Your task to perform on an android device: uninstall "Google Find My Device" Image 0: 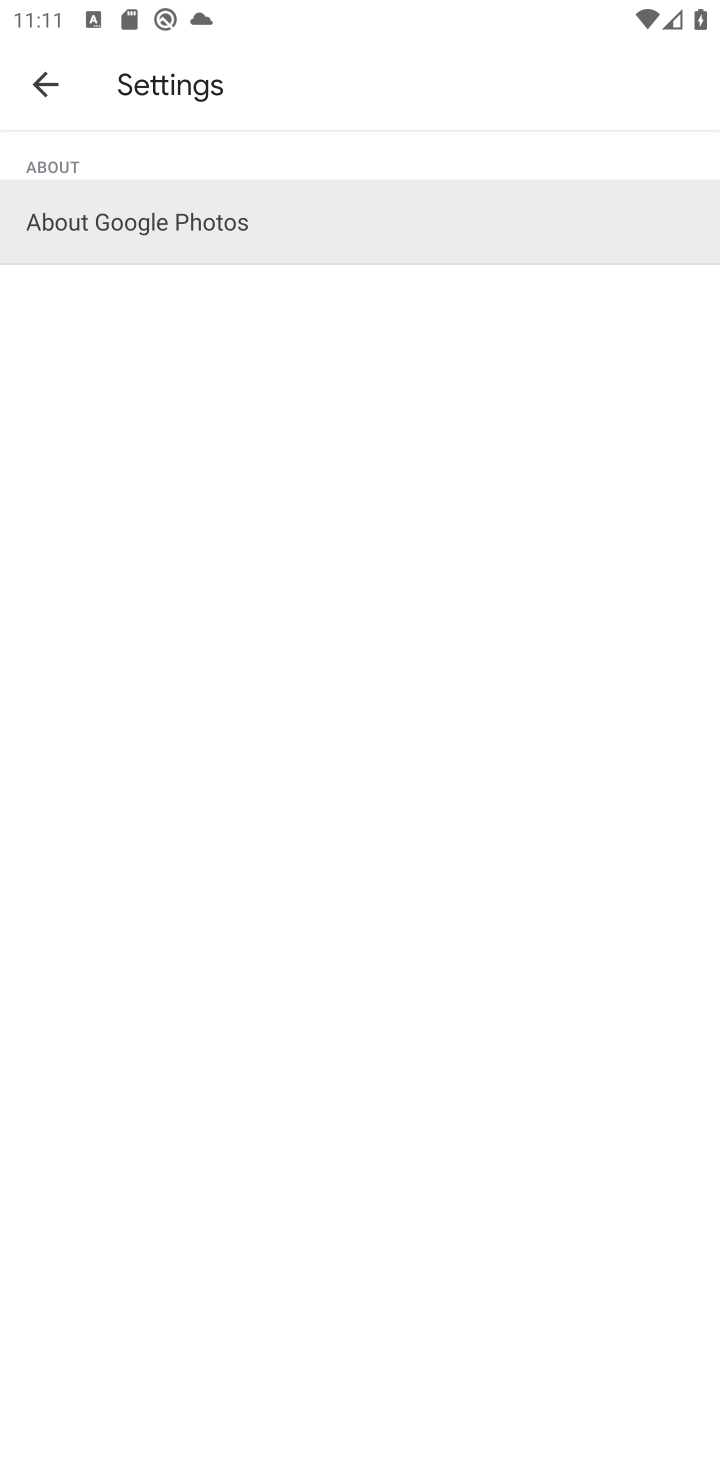
Step 0: press home button
Your task to perform on an android device: uninstall "Google Find My Device" Image 1: 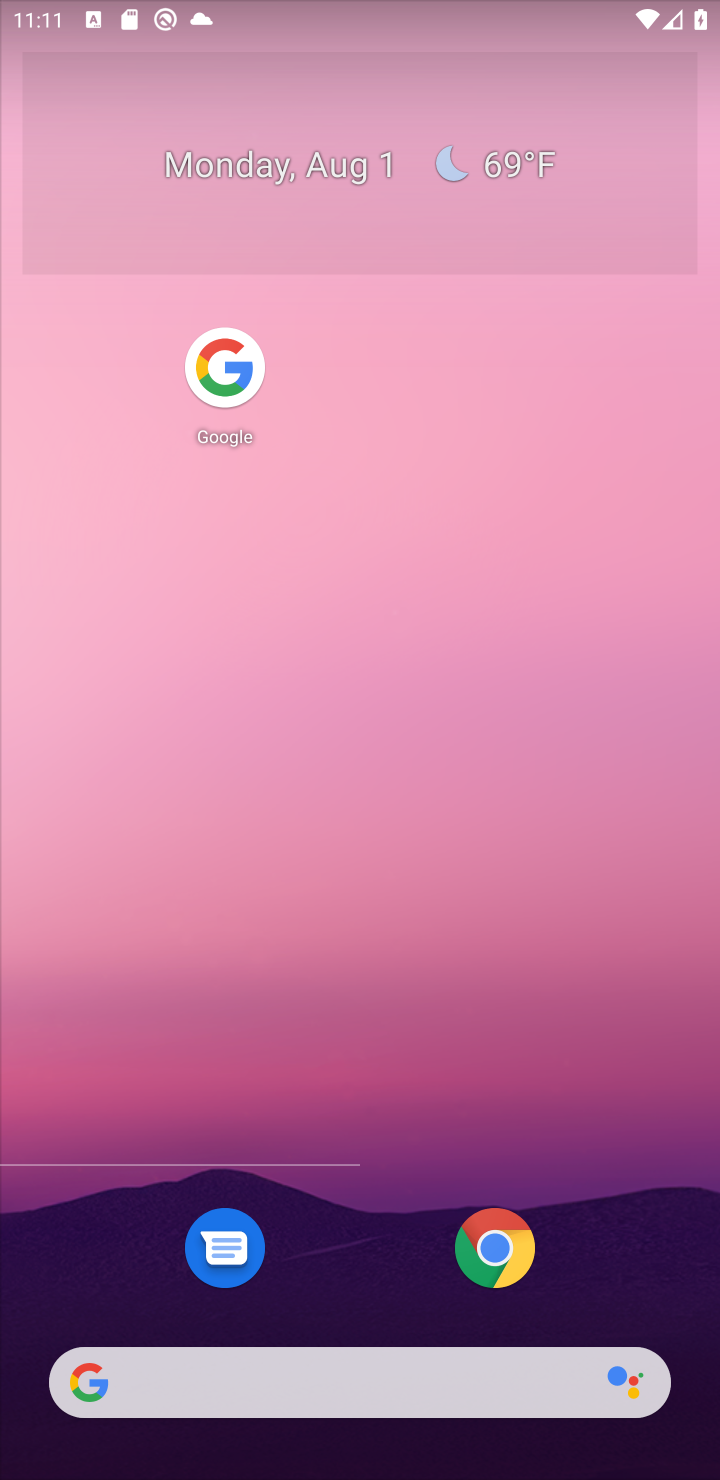
Step 1: drag from (616, 871) to (614, 247)
Your task to perform on an android device: uninstall "Google Find My Device" Image 2: 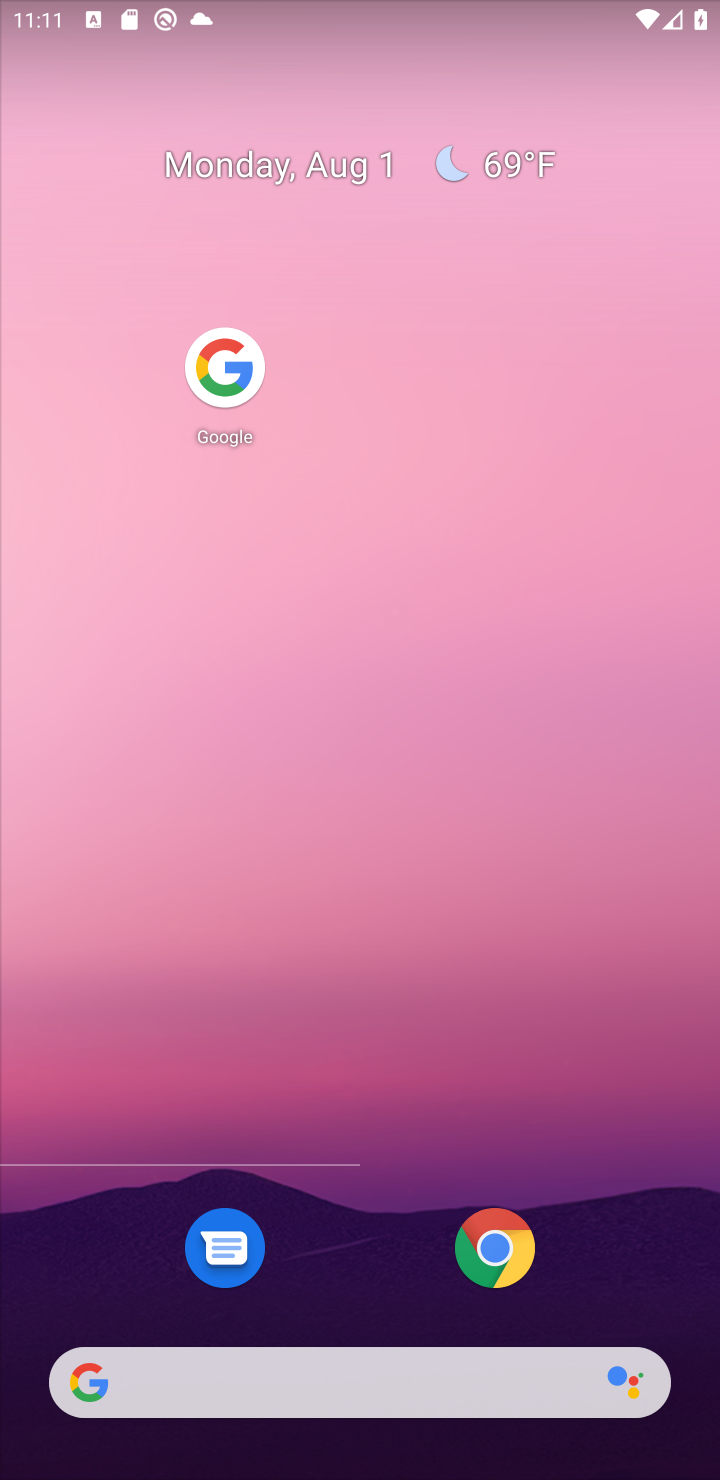
Step 2: drag from (586, 1173) to (582, 252)
Your task to perform on an android device: uninstall "Google Find My Device" Image 3: 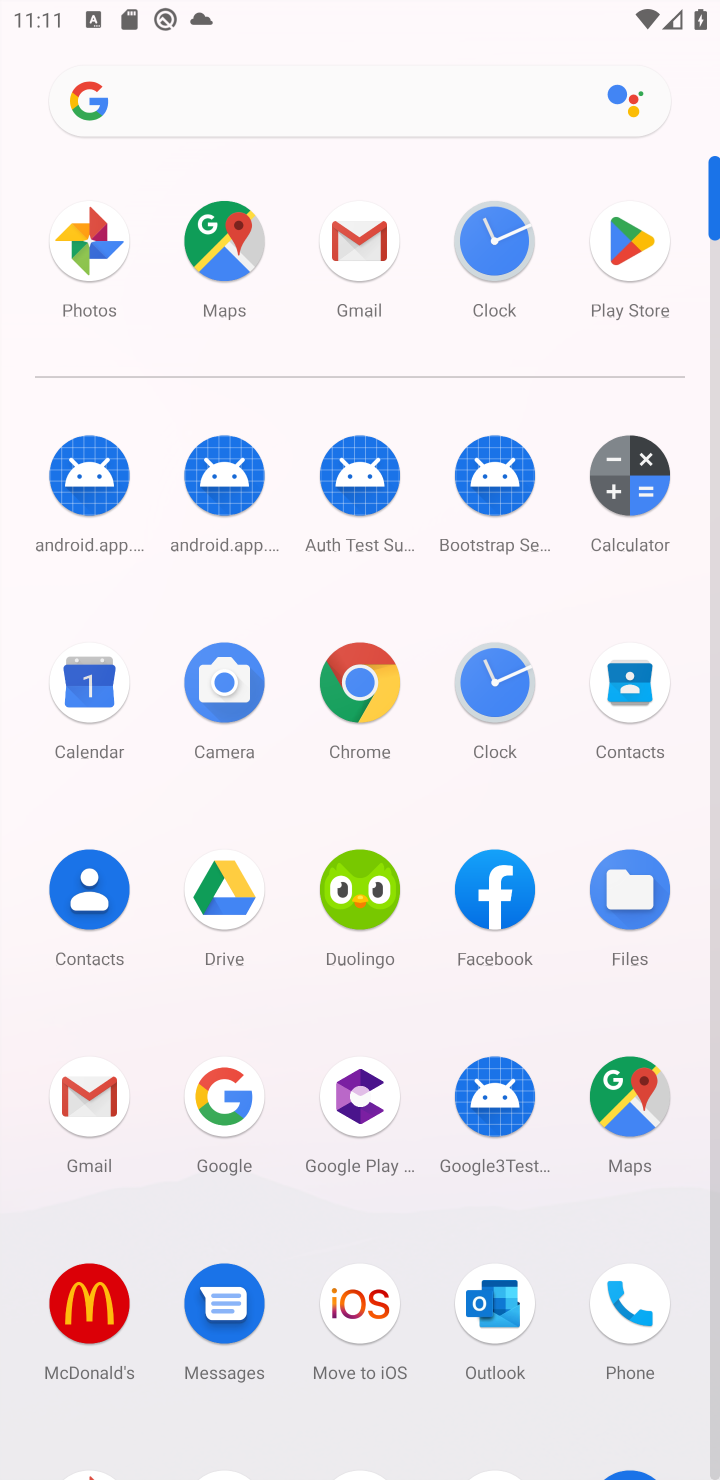
Step 3: drag from (446, 1191) to (443, 570)
Your task to perform on an android device: uninstall "Google Find My Device" Image 4: 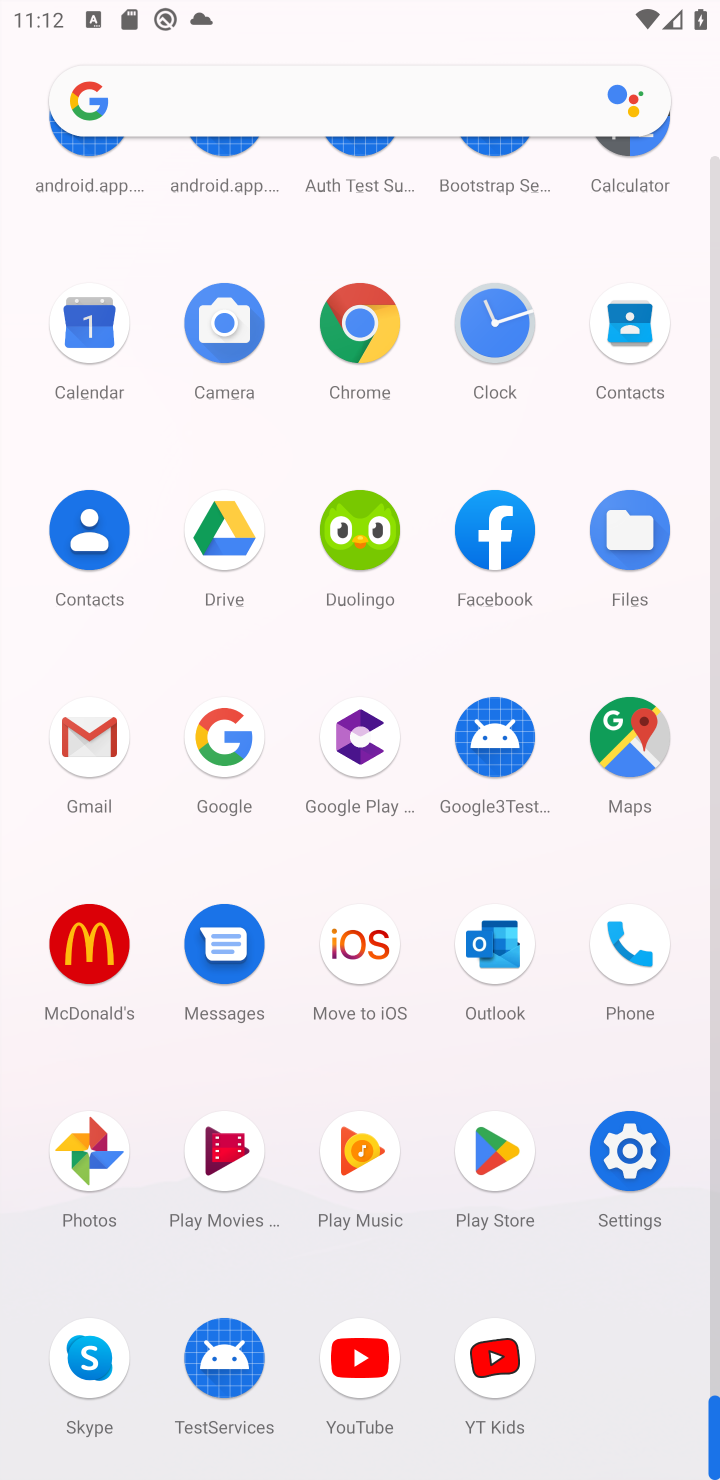
Step 4: click (500, 1155)
Your task to perform on an android device: uninstall "Google Find My Device" Image 5: 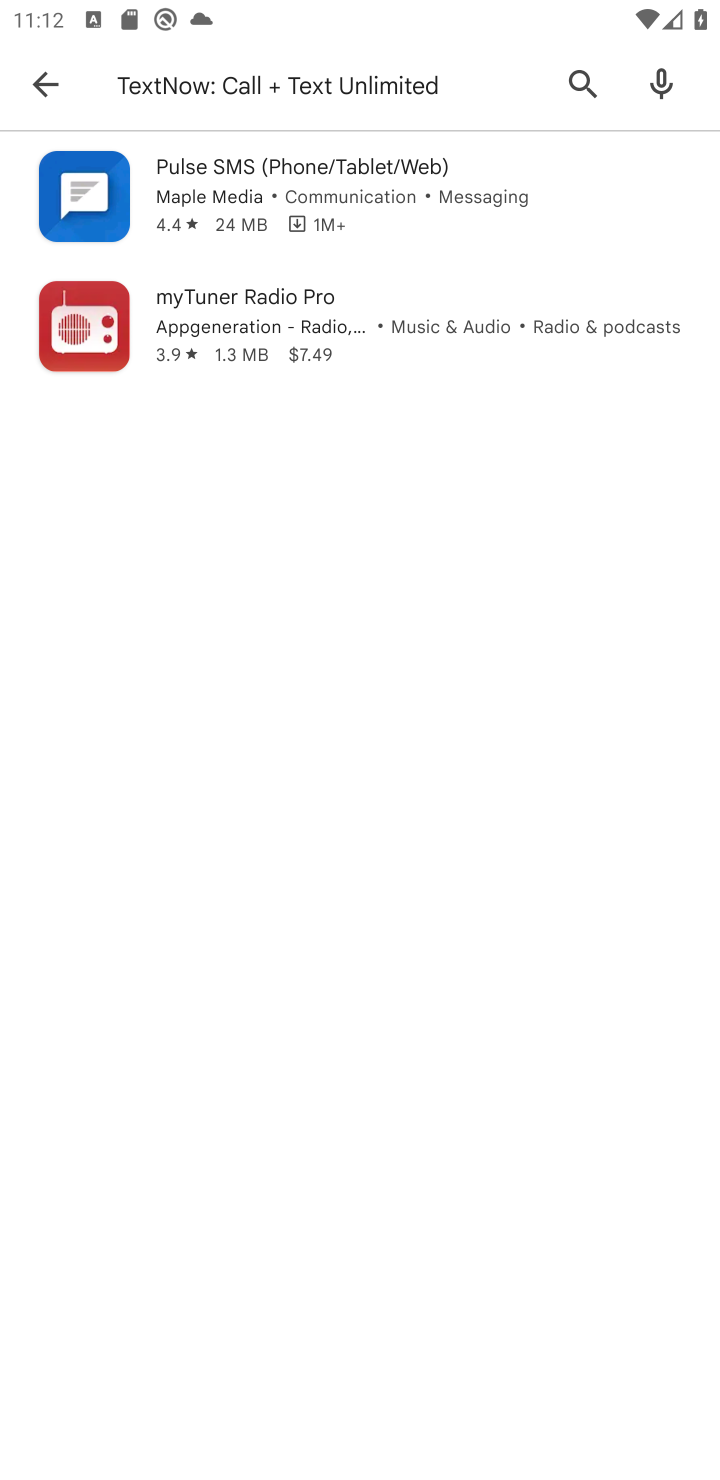
Step 5: click (488, 65)
Your task to perform on an android device: uninstall "Google Find My Device" Image 6: 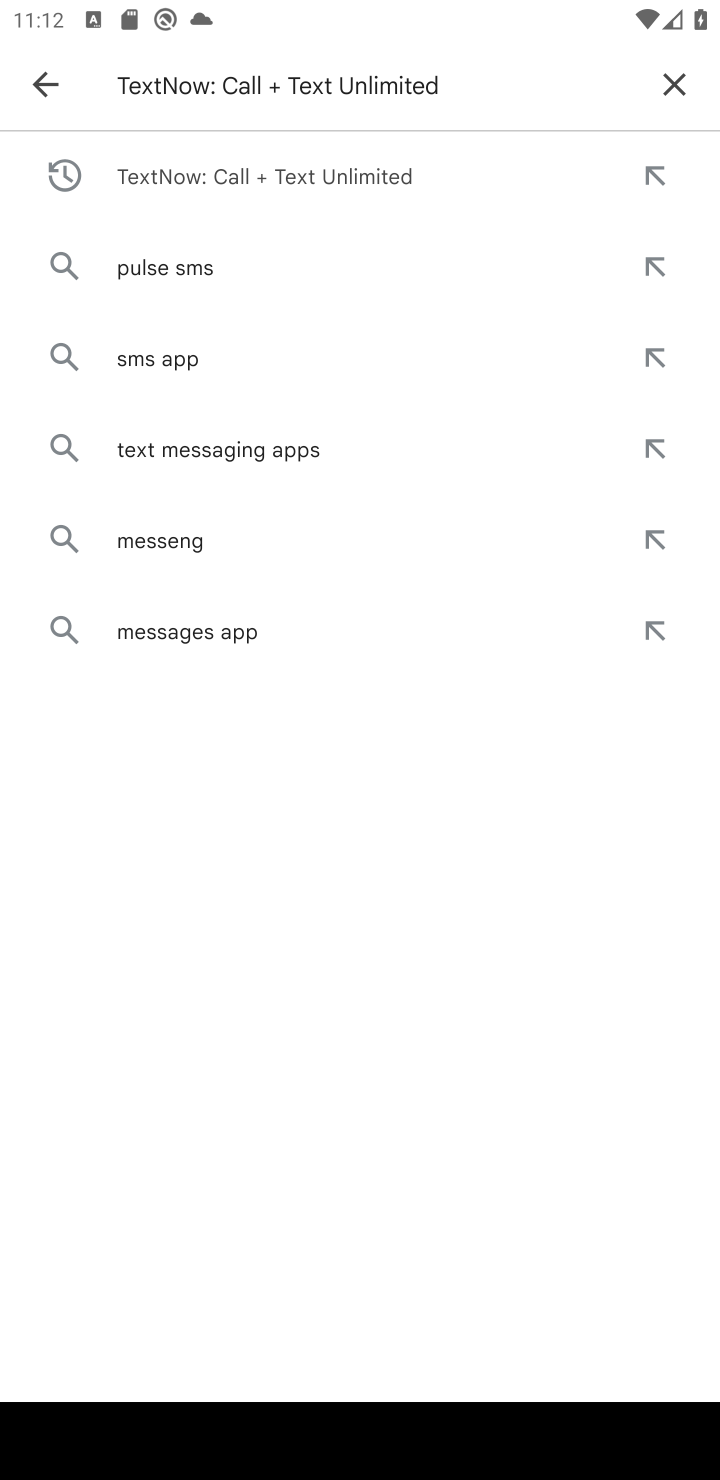
Step 6: click (671, 82)
Your task to perform on an android device: uninstall "Google Find My Device" Image 7: 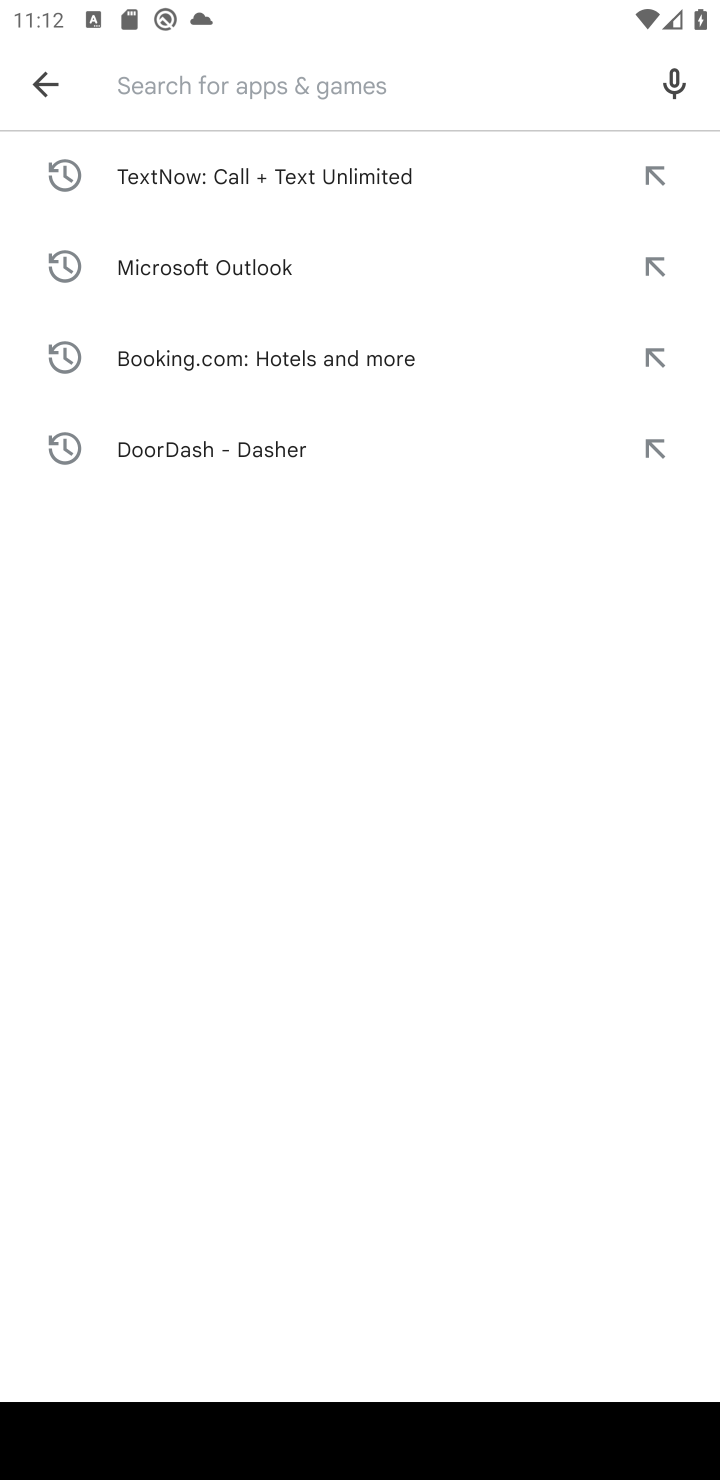
Step 7: type "Google Find My Device"
Your task to perform on an android device: uninstall "Google Find My Device" Image 8: 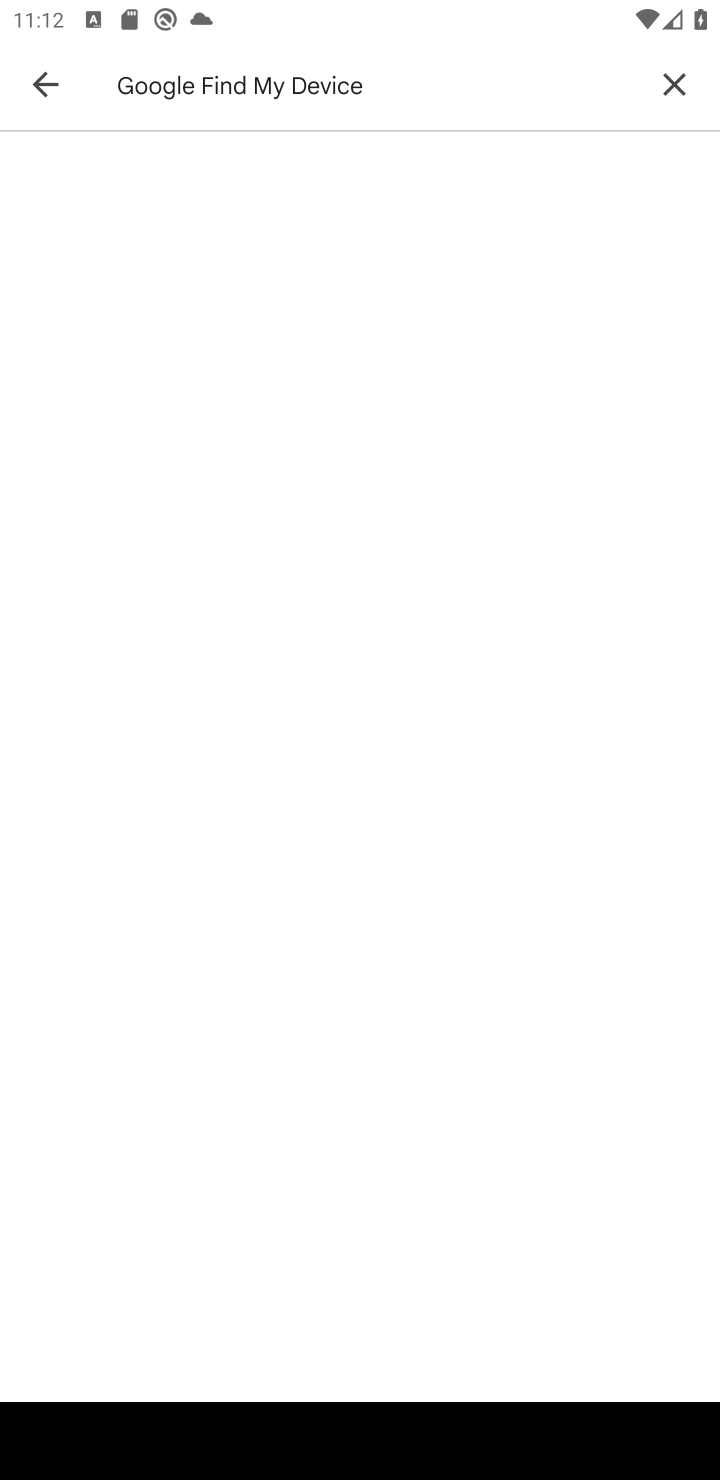
Step 8: press enter
Your task to perform on an android device: uninstall "Google Find My Device" Image 9: 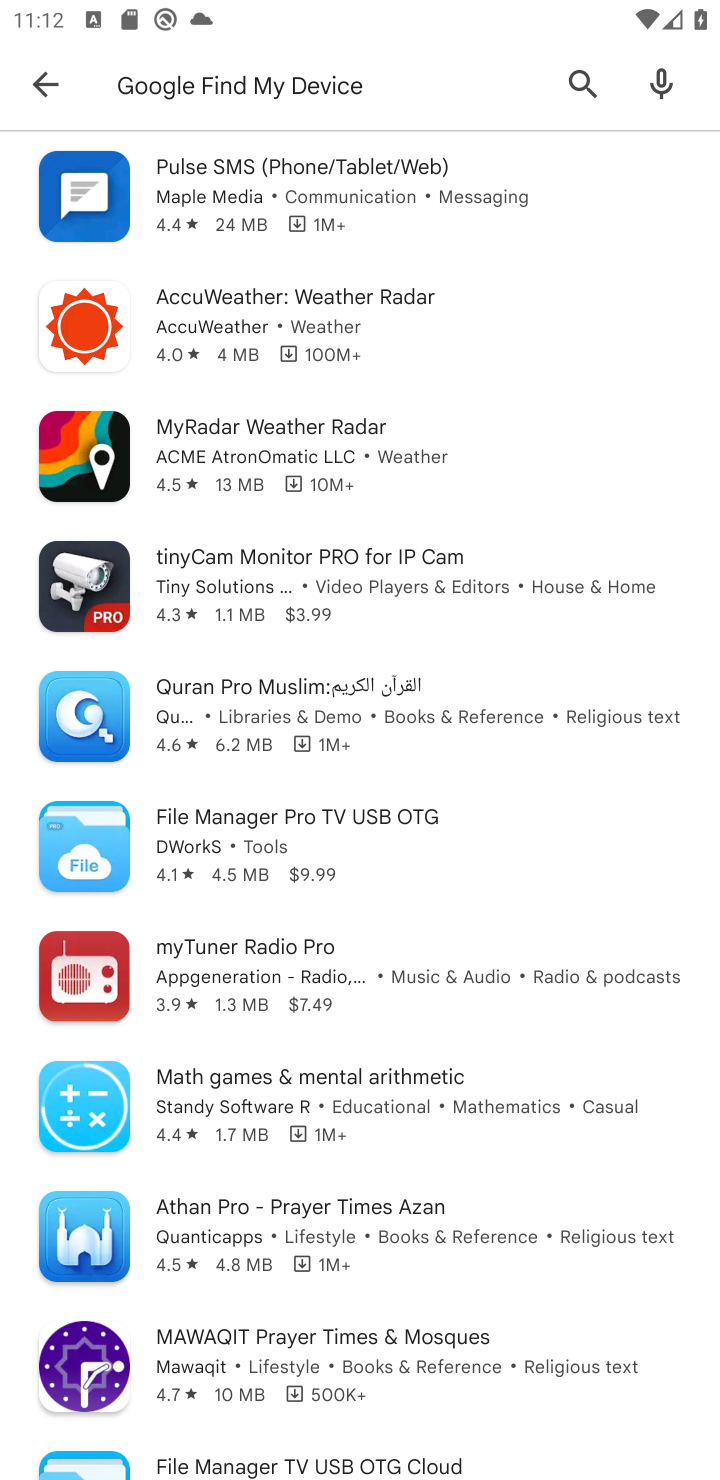
Step 9: task complete